Your task to perform on an android device: Show me recent news Image 0: 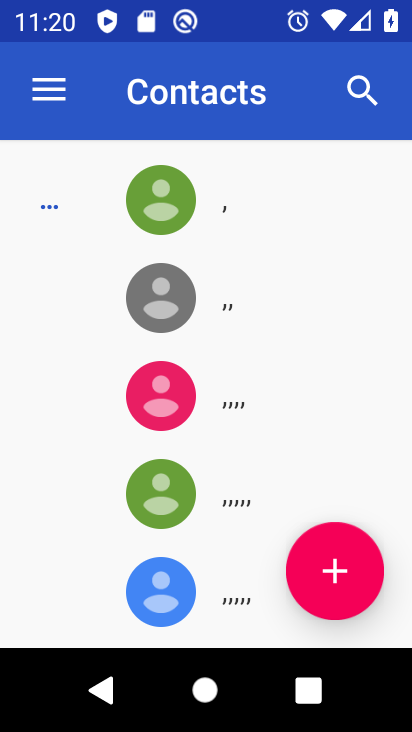
Step 0: press home button
Your task to perform on an android device: Show me recent news Image 1: 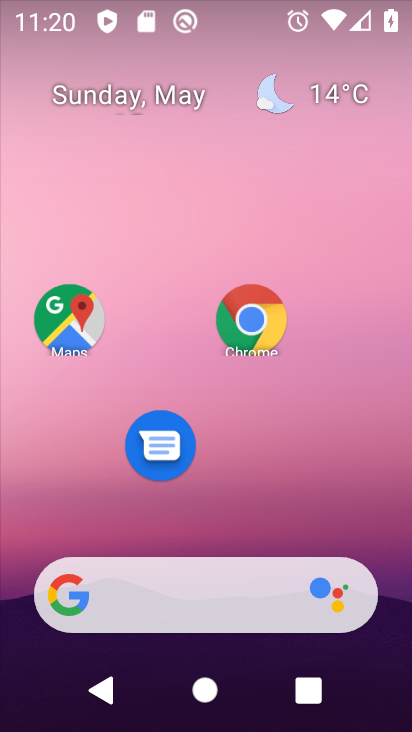
Step 1: click (77, 596)
Your task to perform on an android device: Show me recent news Image 2: 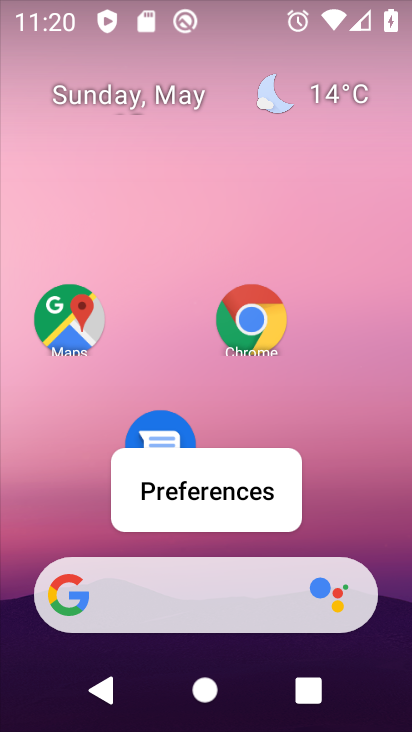
Step 2: click (76, 599)
Your task to perform on an android device: Show me recent news Image 3: 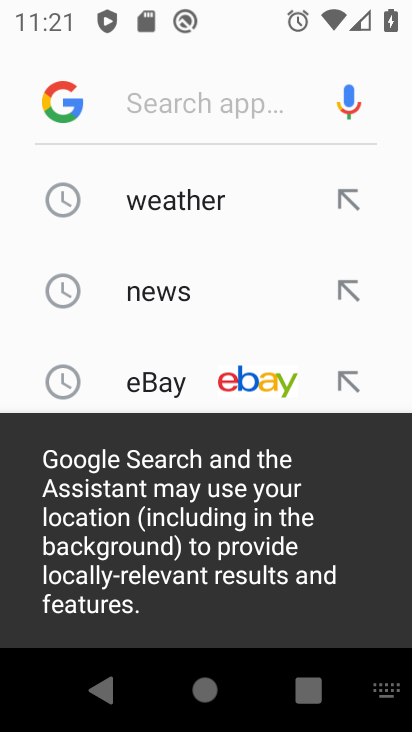
Step 3: click (169, 292)
Your task to perform on an android device: Show me recent news Image 4: 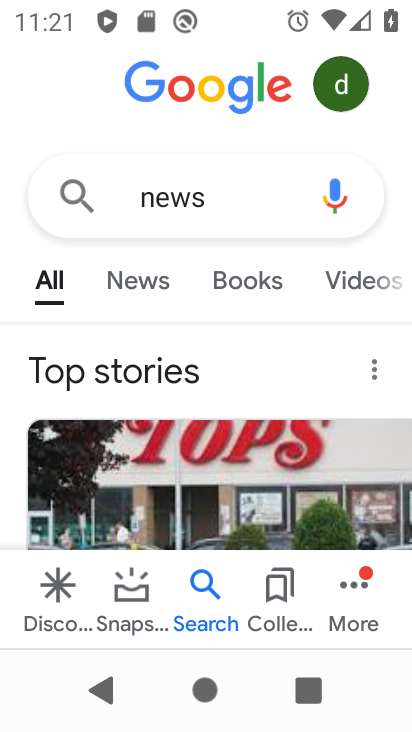
Step 4: click (136, 284)
Your task to perform on an android device: Show me recent news Image 5: 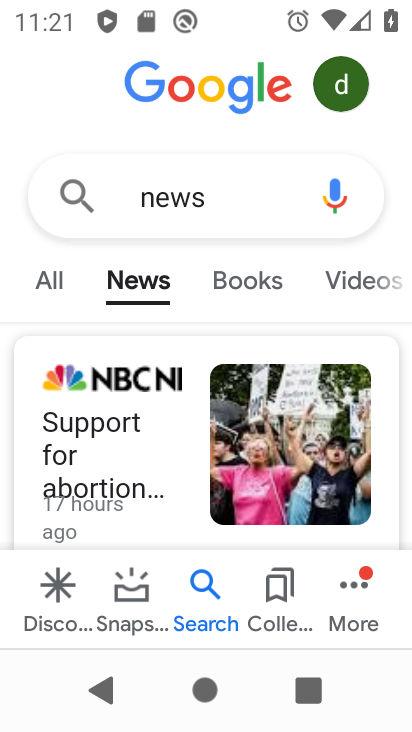
Step 5: task complete